Your task to perform on an android device: move an email to a new category in the gmail app Image 0: 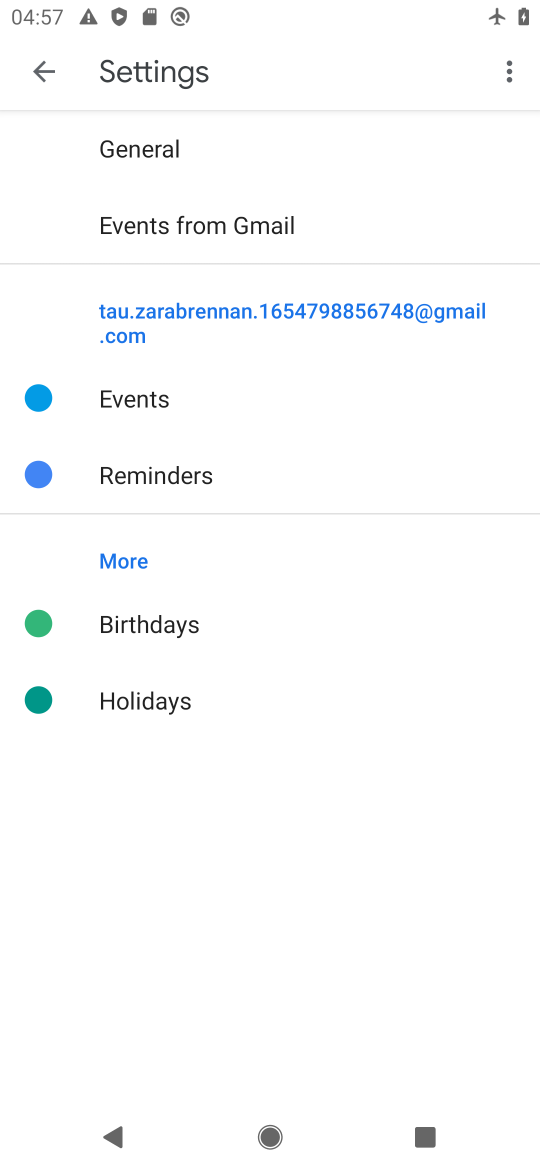
Step 0: press home button
Your task to perform on an android device: move an email to a new category in the gmail app Image 1: 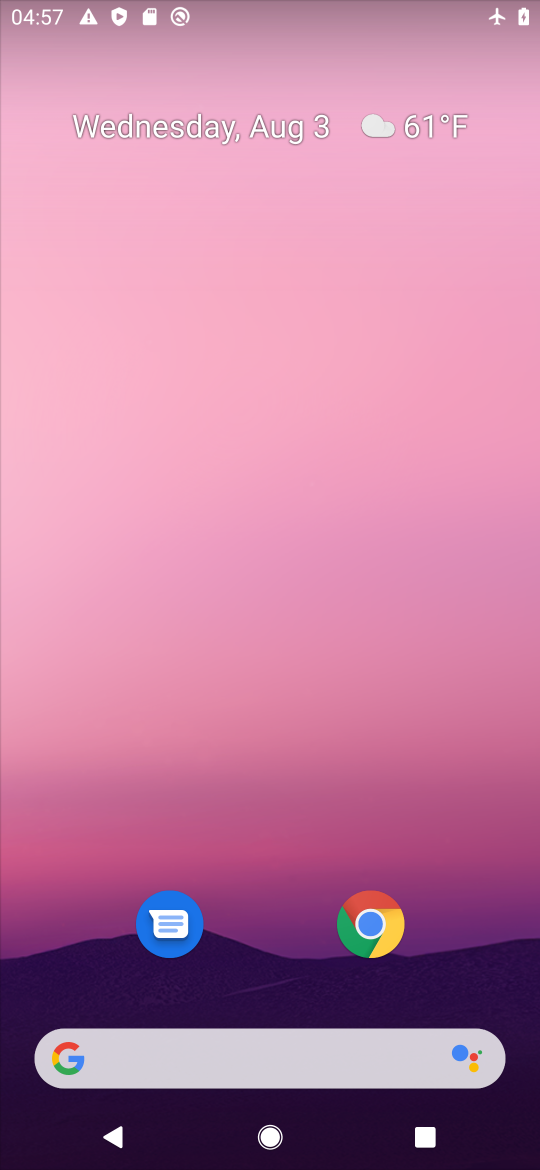
Step 1: drag from (277, 959) to (227, 384)
Your task to perform on an android device: move an email to a new category in the gmail app Image 2: 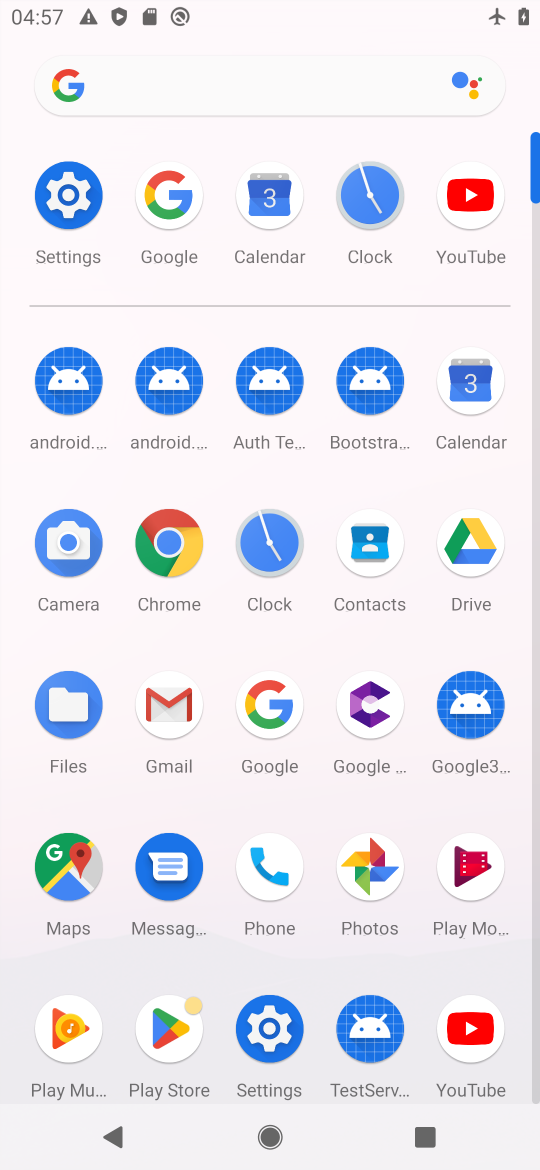
Step 2: click (168, 694)
Your task to perform on an android device: move an email to a new category in the gmail app Image 3: 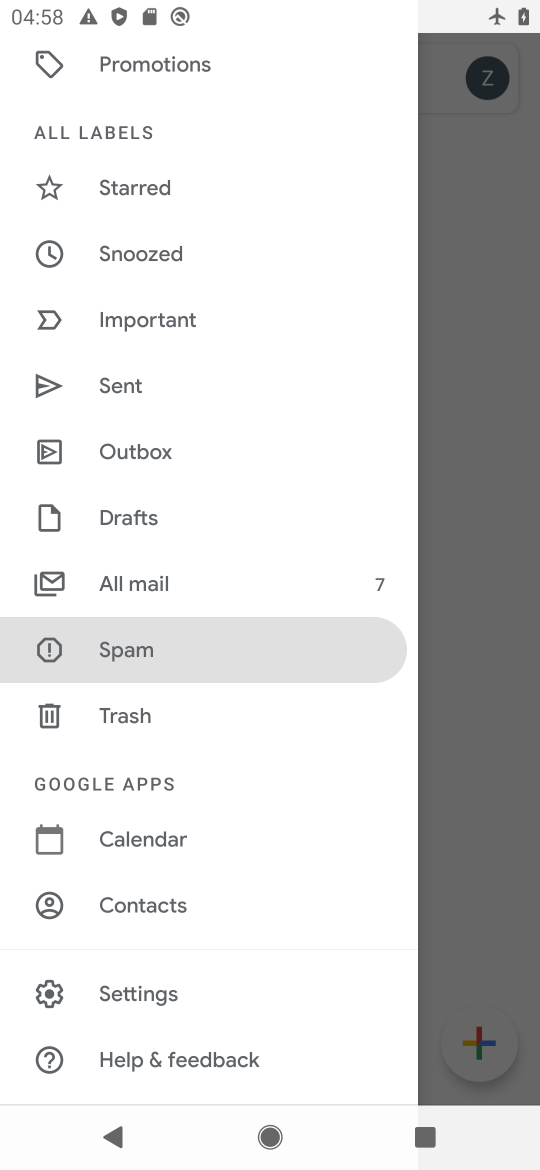
Step 3: click (156, 569)
Your task to perform on an android device: move an email to a new category in the gmail app Image 4: 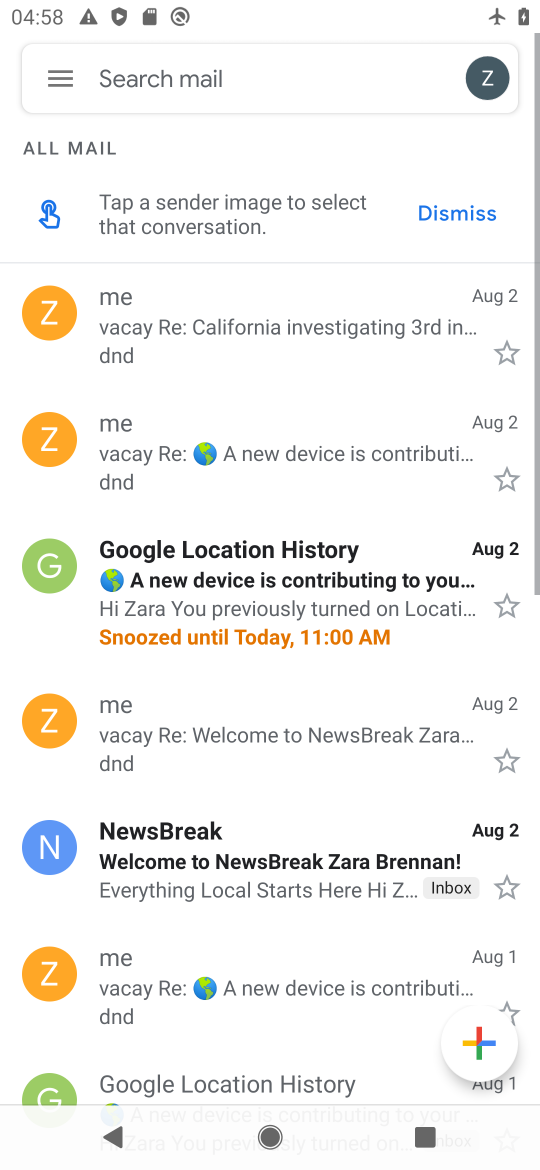
Step 4: click (188, 430)
Your task to perform on an android device: move an email to a new category in the gmail app Image 5: 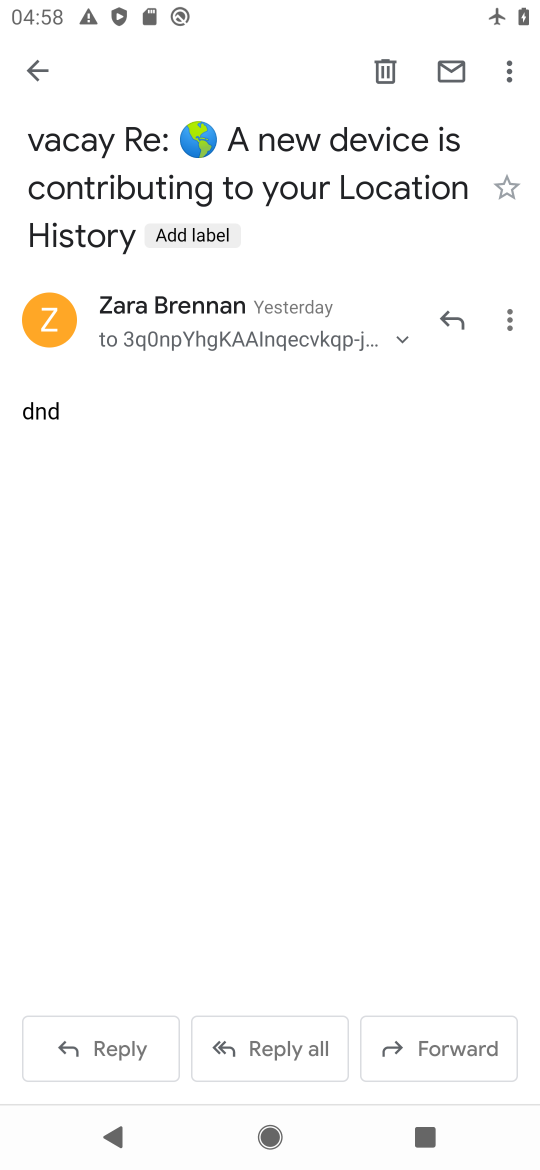
Step 5: click (501, 83)
Your task to perform on an android device: move an email to a new category in the gmail app Image 6: 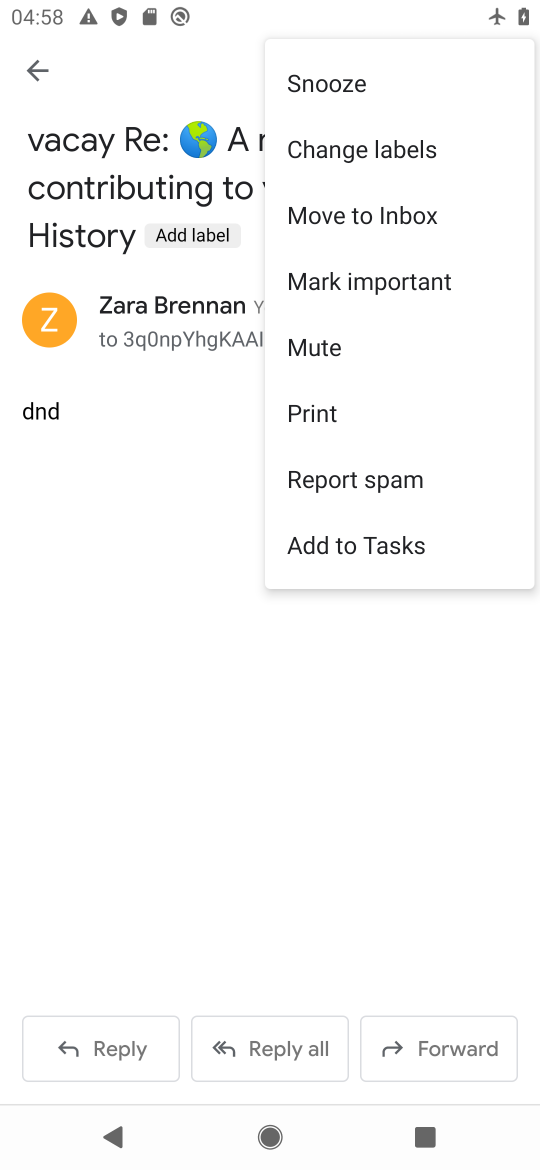
Step 6: click (389, 231)
Your task to perform on an android device: move an email to a new category in the gmail app Image 7: 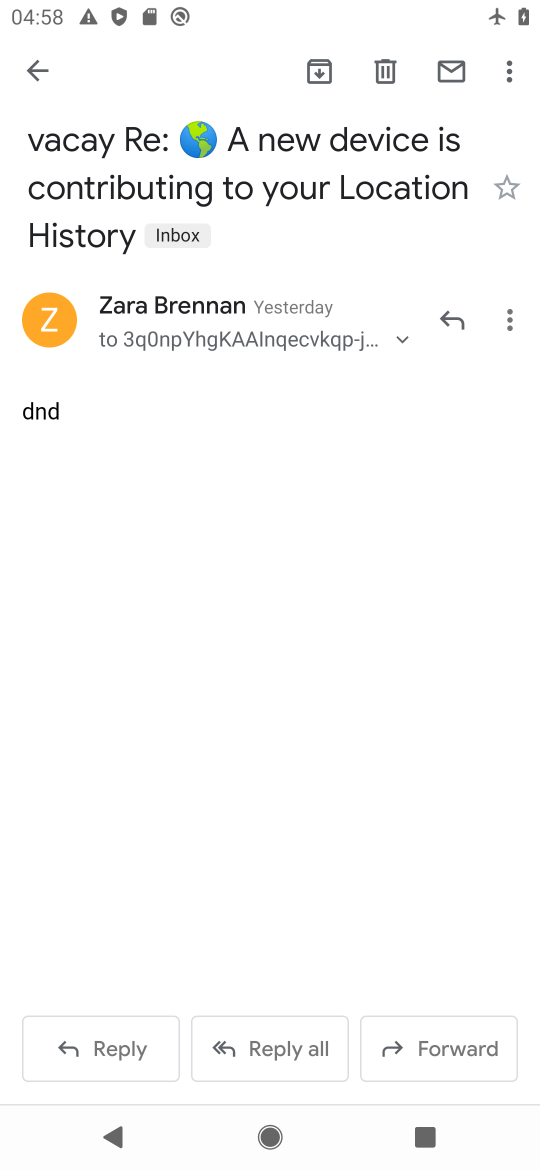
Step 7: task complete